Your task to perform on an android device: Turn on the flashlight Image 0: 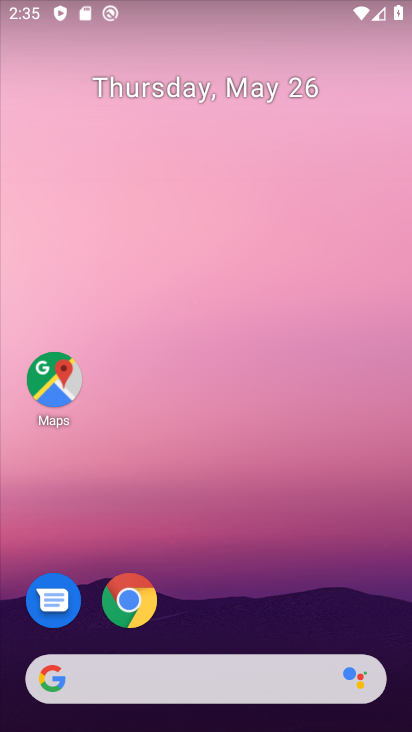
Step 0: drag from (301, 55) to (252, 522)
Your task to perform on an android device: Turn on the flashlight Image 1: 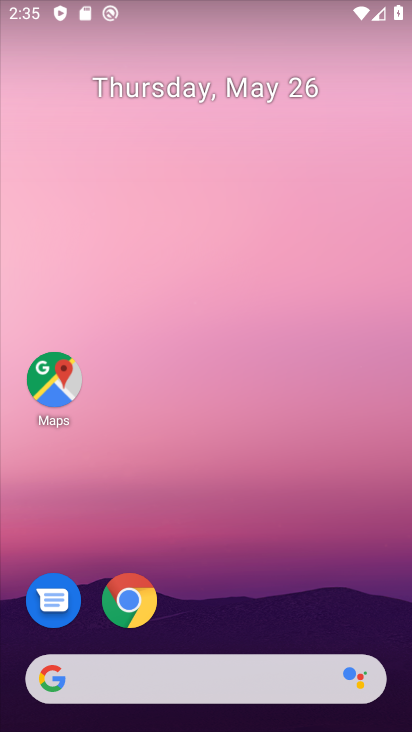
Step 1: task complete